Your task to perform on an android device: change notification settings in the gmail app Image 0: 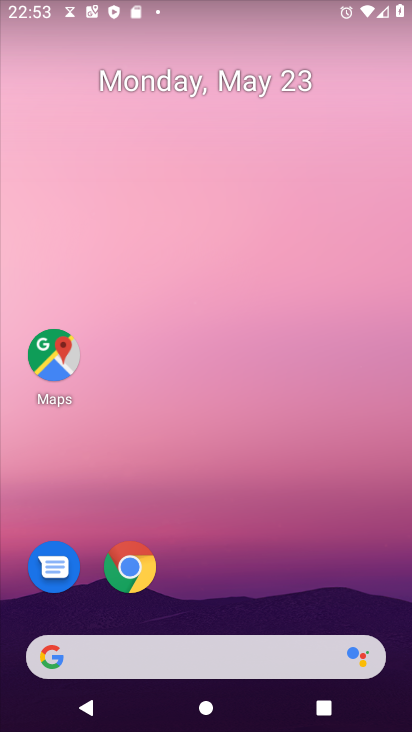
Step 0: drag from (239, 613) to (289, 235)
Your task to perform on an android device: change notification settings in the gmail app Image 1: 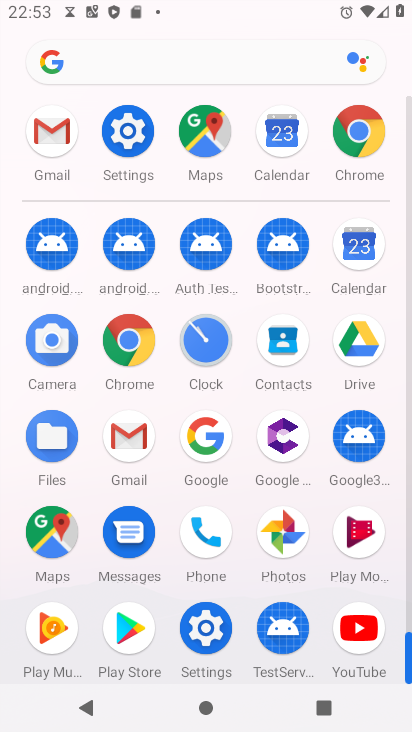
Step 1: click (133, 434)
Your task to perform on an android device: change notification settings in the gmail app Image 2: 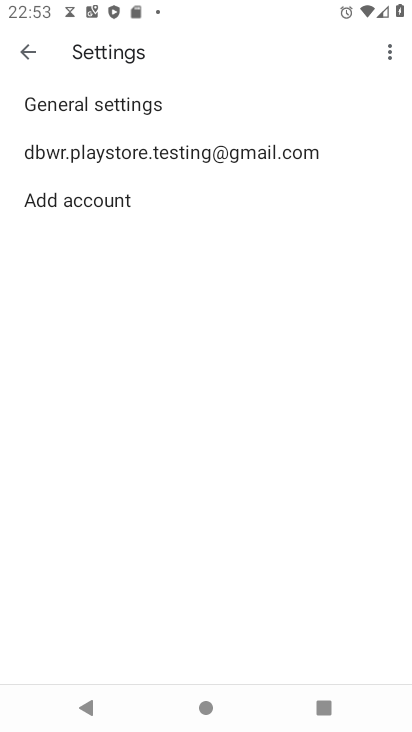
Step 2: click (90, 158)
Your task to perform on an android device: change notification settings in the gmail app Image 3: 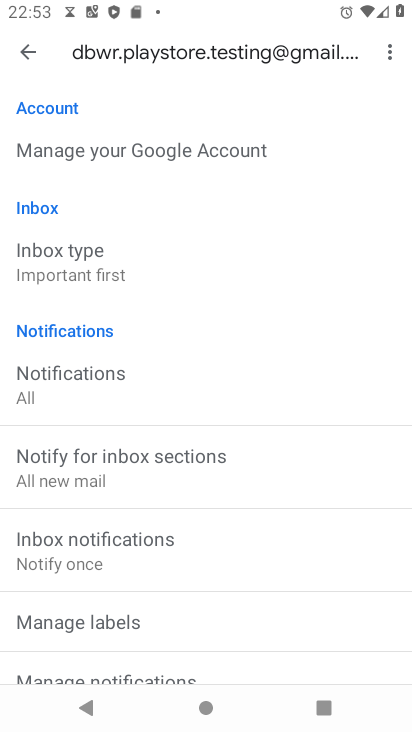
Step 3: click (59, 362)
Your task to perform on an android device: change notification settings in the gmail app Image 4: 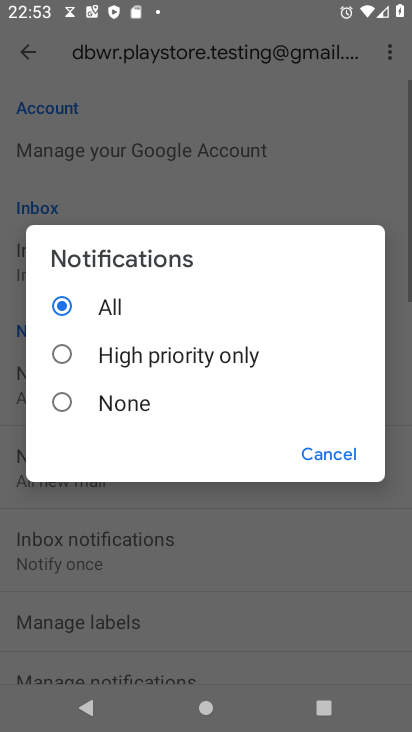
Step 4: click (78, 398)
Your task to perform on an android device: change notification settings in the gmail app Image 5: 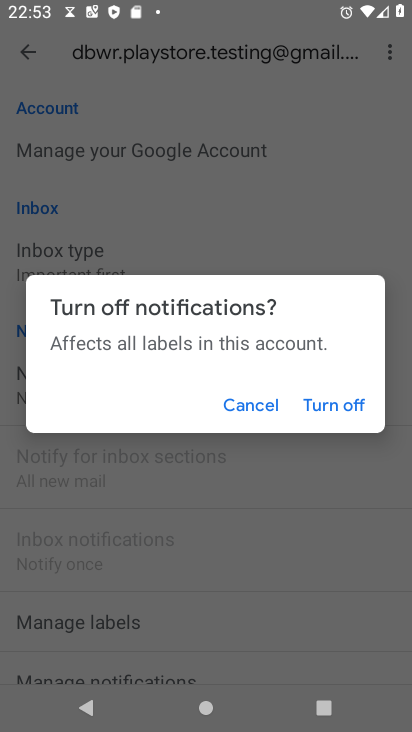
Step 5: click (350, 413)
Your task to perform on an android device: change notification settings in the gmail app Image 6: 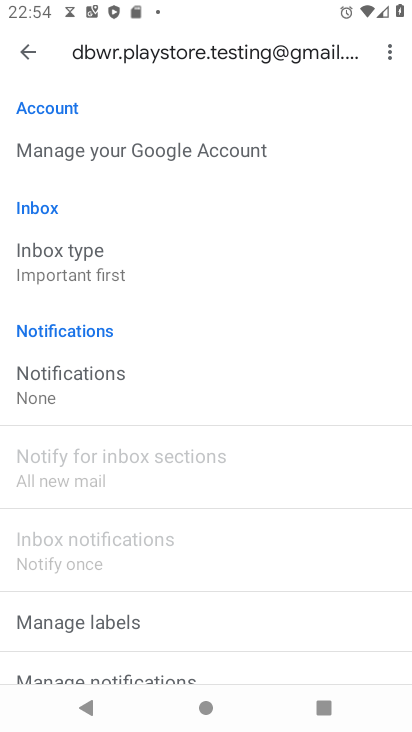
Step 6: task complete